Your task to perform on an android device: toggle show notifications on the lock screen Image 0: 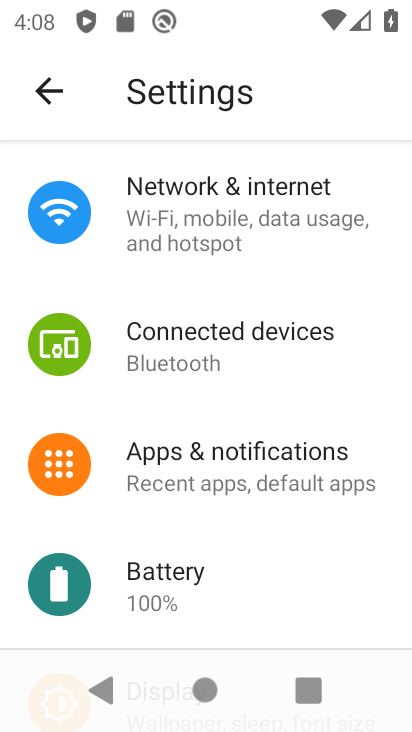
Step 0: click (214, 456)
Your task to perform on an android device: toggle show notifications on the lock screen Image 1: 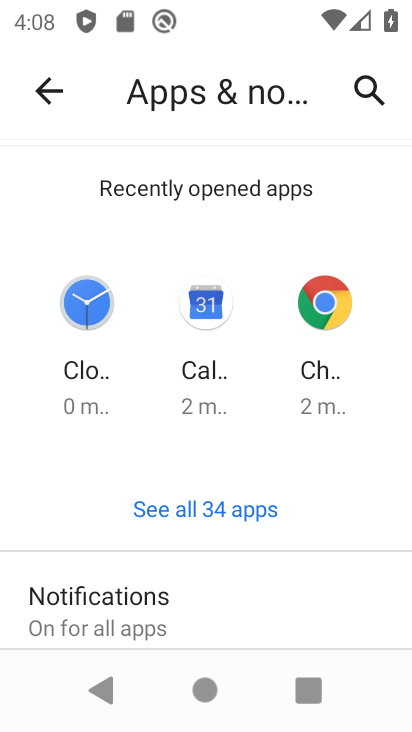
Step 1: click (125, 598)
Your task to perform on an android device: toggle show notifications on the lock screen Image 2: 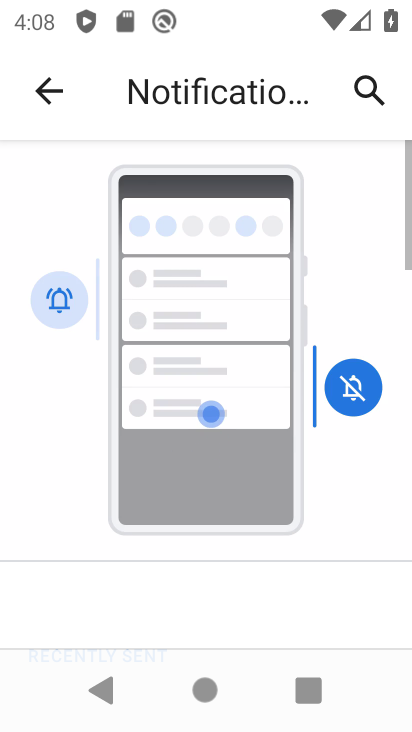
Step 2: drag from (198, 600) to (180, 209)
Your task to perform on an android device: toggle show notifications on the lock screen Image 3: 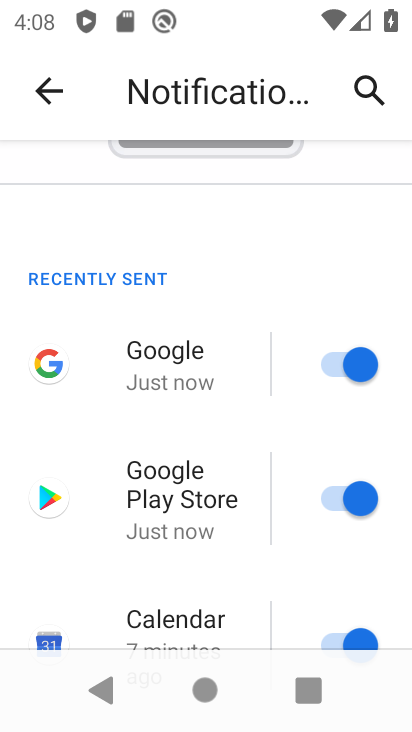
Step 3: drag from (180, 608) to (188, 263)
Your task to perform on an android device: toggle show notifications on the lock screen Image 4: 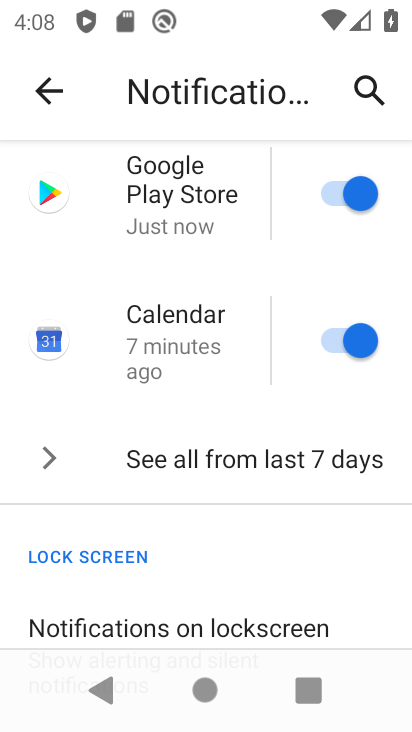
Step 4: drag from (109, 613) to (120, 225)
Your task to perform on an android device: toggle show notifications on the lock screen Image 5: 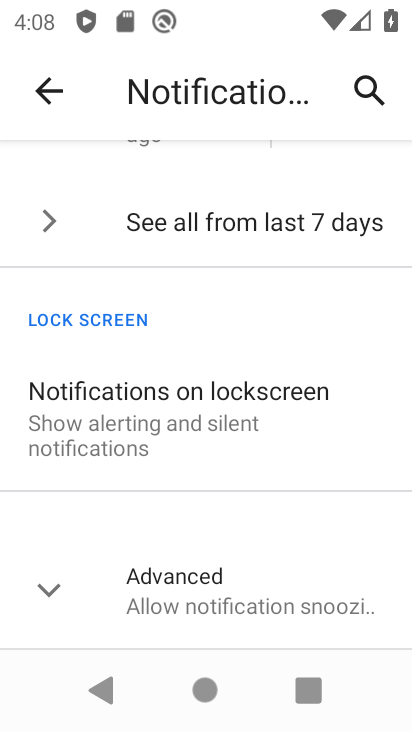
Step 5: click (152, 417)
Your task to perform on an android device: toggle show notifications on the lock screen Image 6: 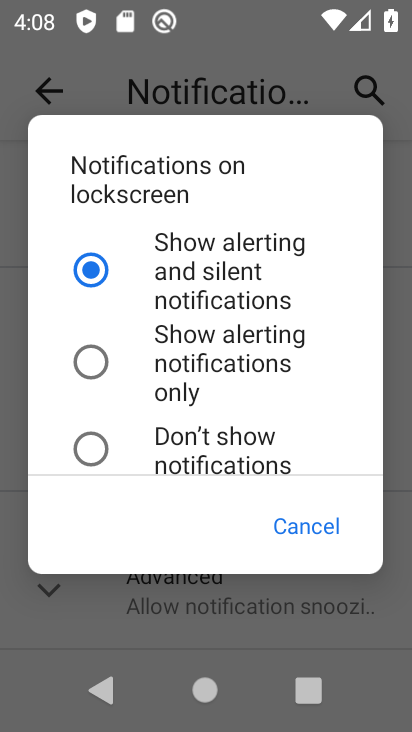
Step 6: click (88, 364)
Your task to perform on an android device: toggle show notifications on the lock screen Image 7: 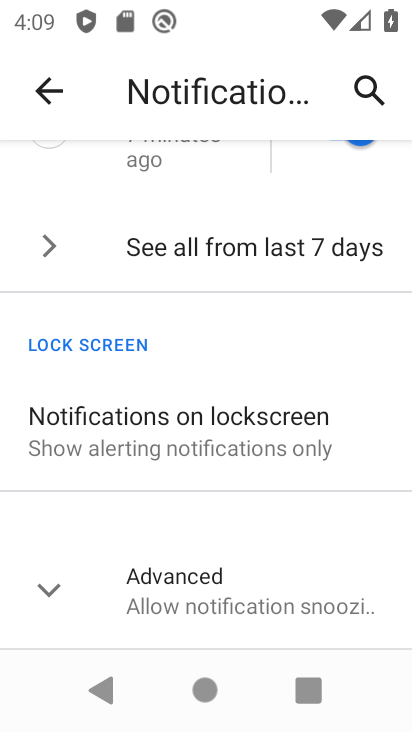
Step 7: task complete